Your task to perform on an android device: turn on wifi Image 0: 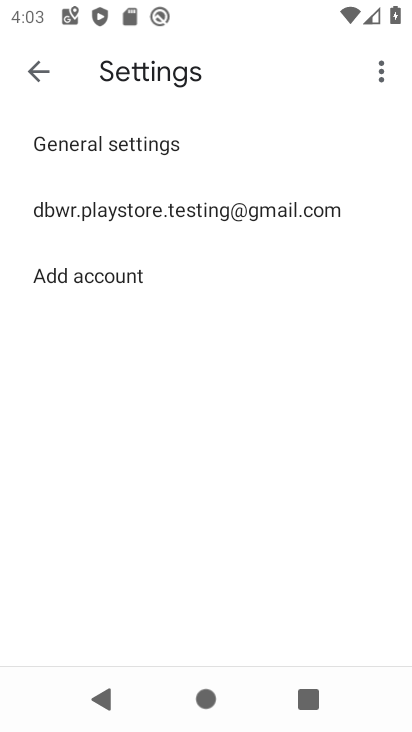
Step 0: press home button
Your task to perform on an android device: turn on wifi Image 1: 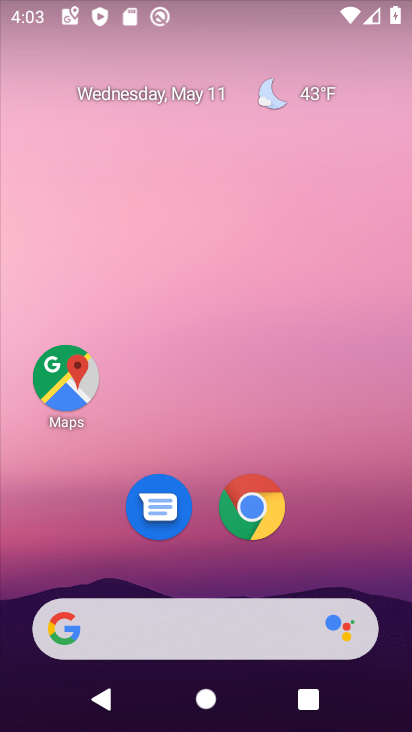
Step 1: drag from (243, 486) to (245, 200)
Your task to perform on an android device: turn on wifi Image 2: 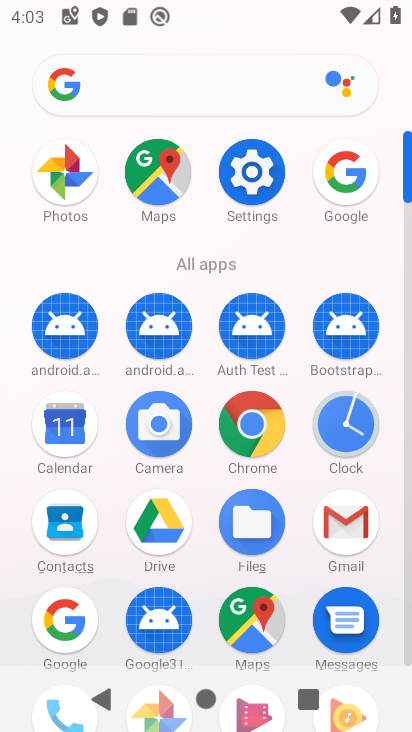
Step 2: click (260, 194)
Your task to perform on an android device: turn on wifi Image 3: 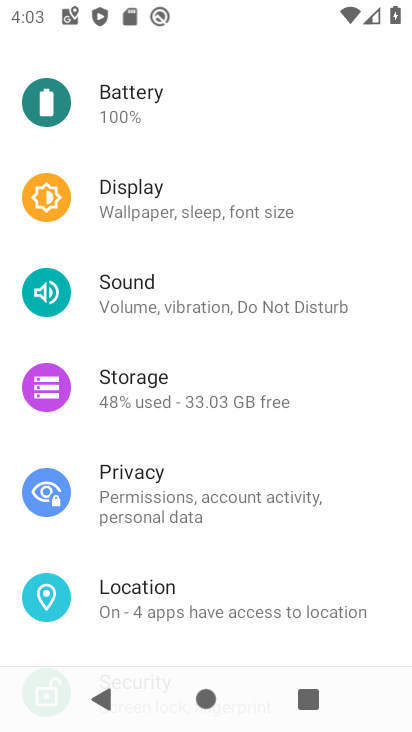
Step 3: drag from (266, 199) to (269, 584)
Your task to perform on an android device: turn on wifi Image 4: 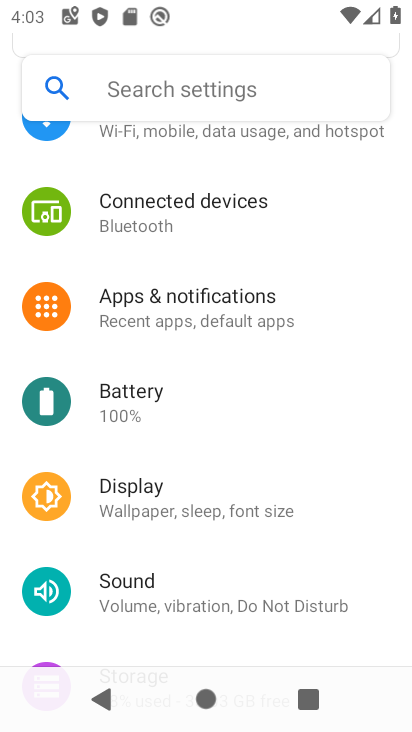
Step 4: drag from (234, 249) to (253, 555)
Your task to perform on an android device: turn on wifi Image 5: 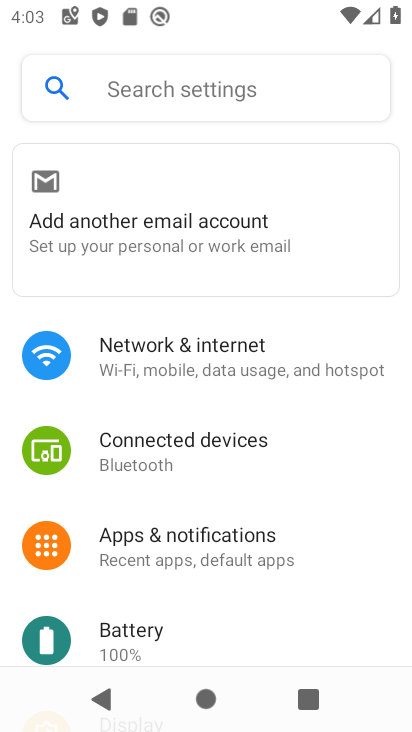
Step 5: click (181, 358)
Your task to perform on an android device: turn on wifi Image 6: 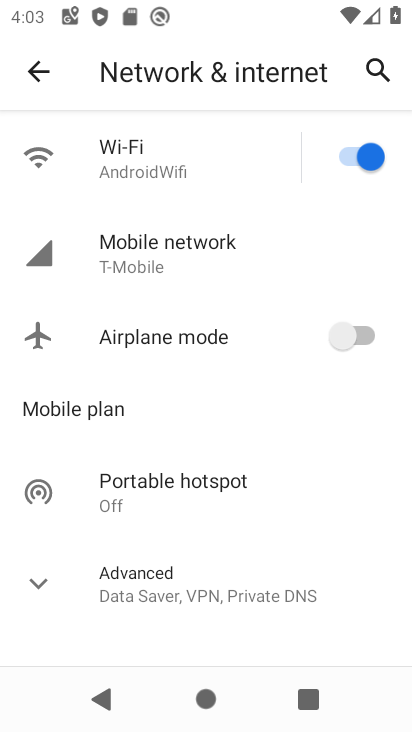
Step 6: task complete